Your task to perform on an android device: toggle notification dots Image 0: 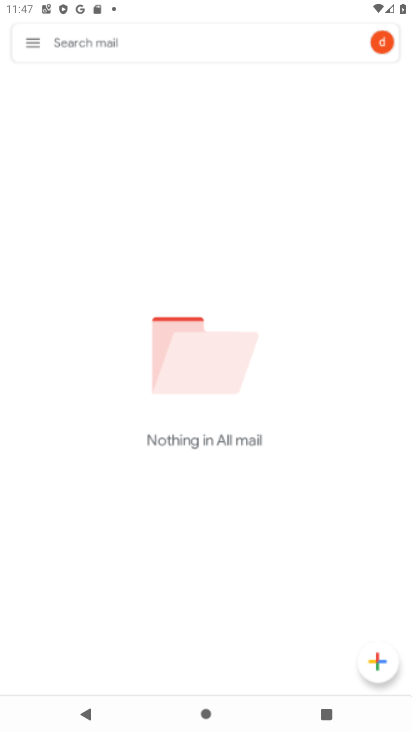
Step 0: drag from (201, 613) to (325, 125)
Your task to perform on an android device: toggle notification dots Image 1: 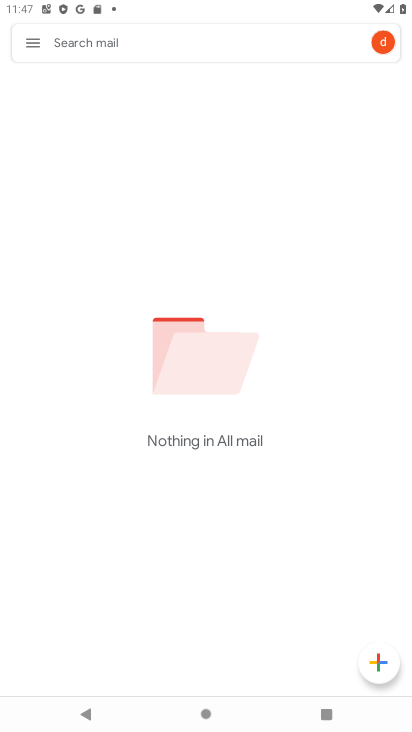
Step 1: press home button
Your task to perform on an android device: toggle notification dots Image 2: 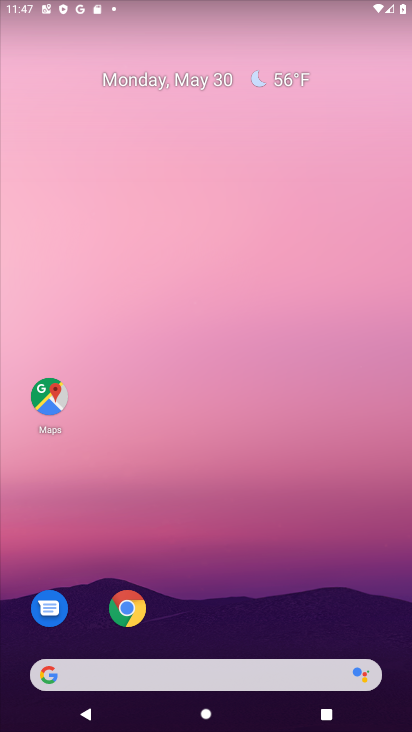
Step 2: drag from (198, 618) to (242, 104)
Your task to perform on an android device: toggle notification dots Image 3: 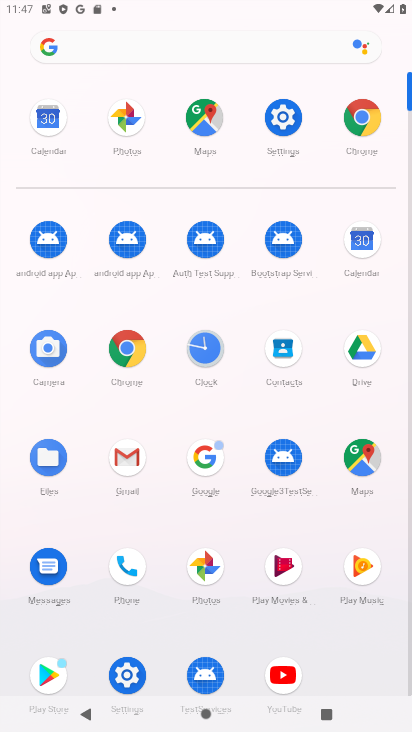
Step 3: click (284, 115)
Your task to perform on an android device: toggle notification dots Image 4: 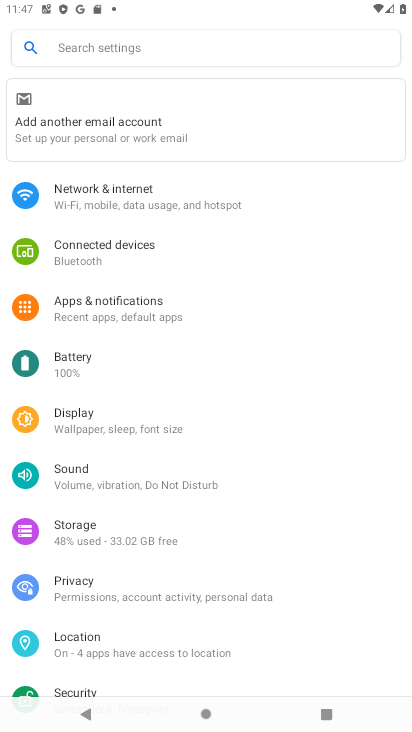
Step 4: click (131, 305)
Your task to perform on an android device: toggle notification dots Image 5: 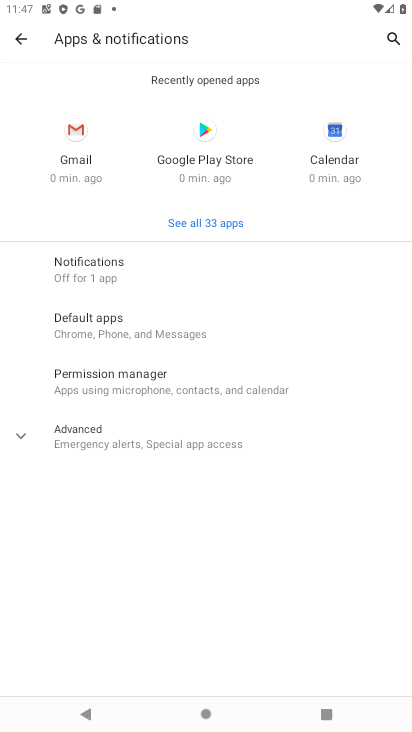
Step 5: click (97, 275)
Your task to perform on an android device: toggle notification dots Image 6: 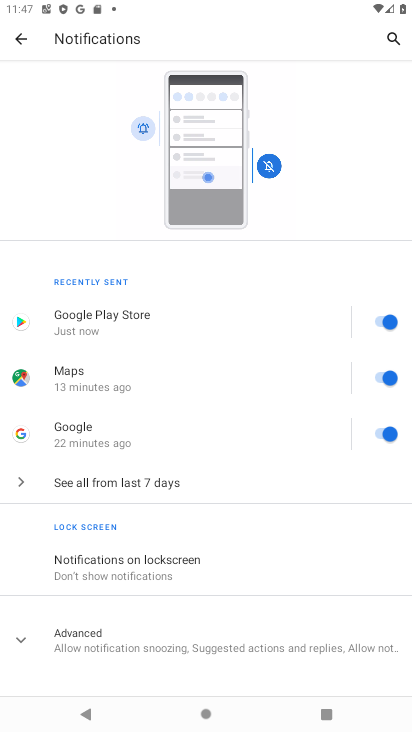
Step 6: click (121, 636)
Your task to perform on an android device: toggle notification dots Image 7: 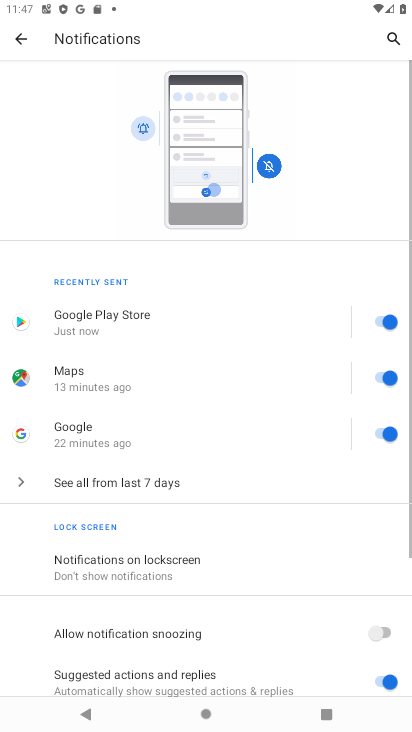
Step 7: drag from (235, 570) to (276, 122)
Your task to perform on an android device: toggle notification dots Image 8: 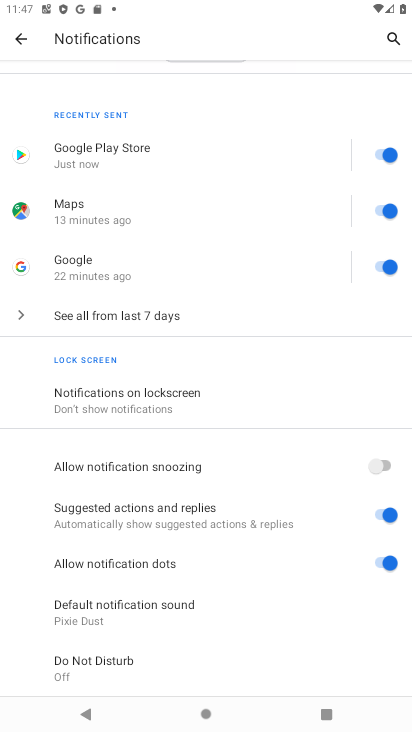
Step 8: click (389, 559)
Your task to perform on an android device: toggle notification dots Image 9: 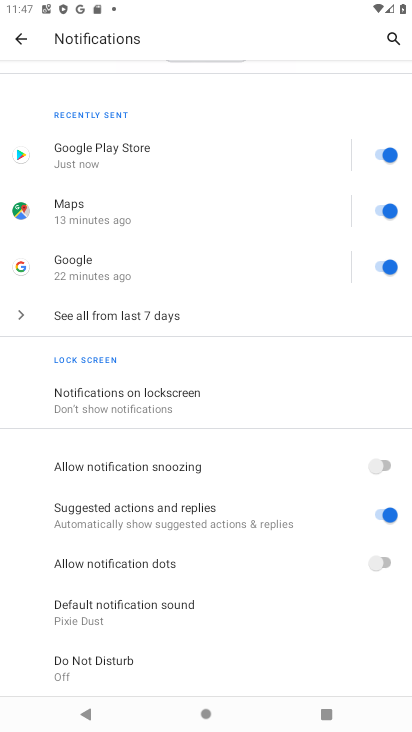
Step 9: task complete